Your task to perform on an android device: Open Youtube and go to the subscriptions tab Image 0: 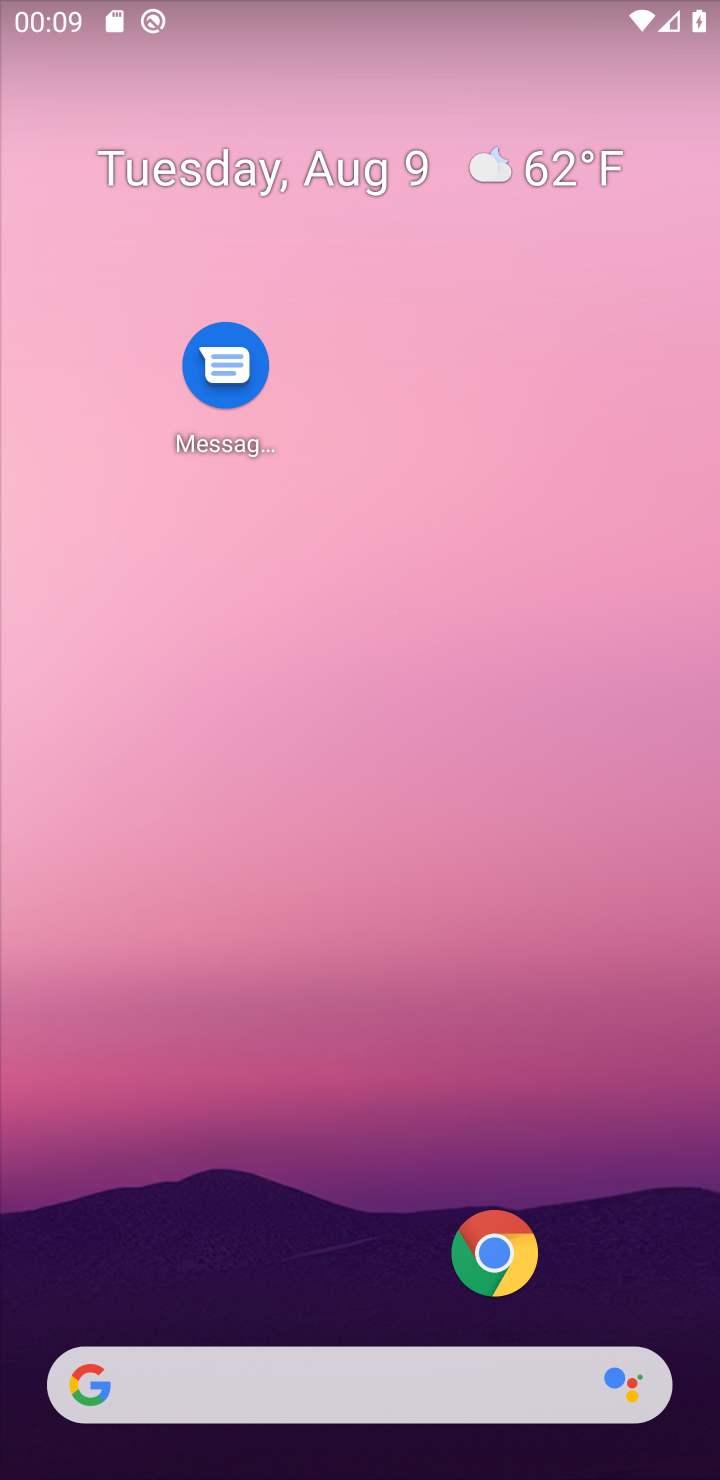
Step 0: drag from (370, 477) to (380, 373)
Your task to perform on an android device: Open Youtube and go to the subscriptions tab Image 1: 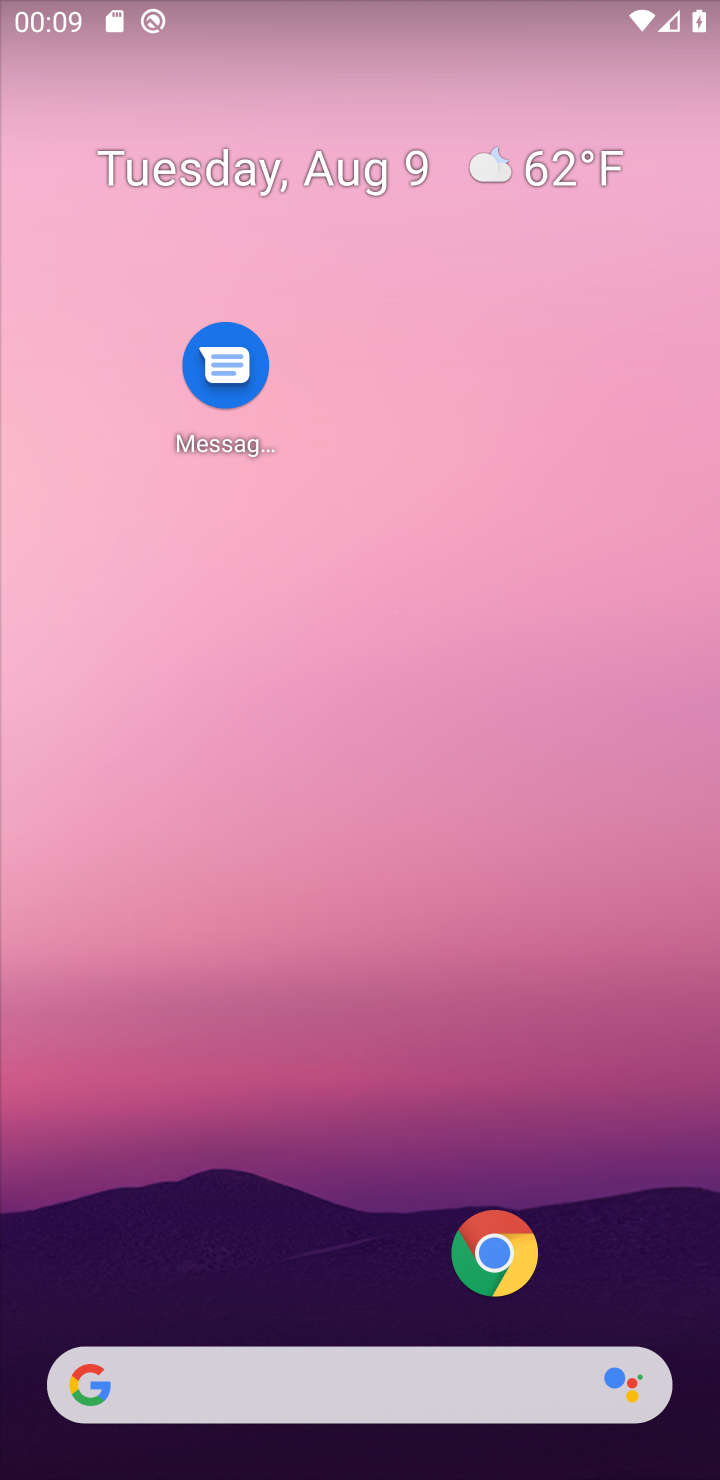
Step 1: drag from (394, 1227) to (374, 234)
Your task to perform on an android device: Open Youtube and go to the subscriptions tab Image 2: 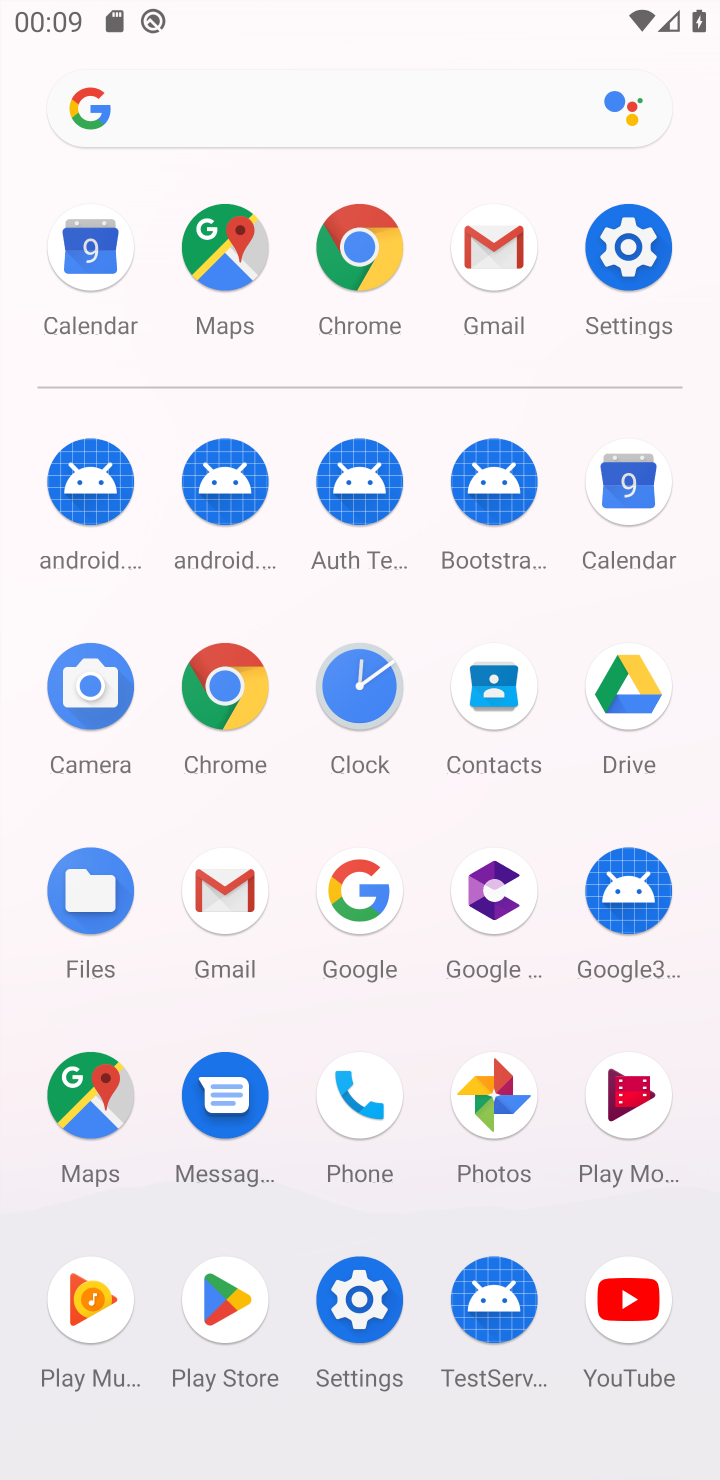
Step 2: click (638, 1310)
Your task to perform on an android device: Open Youtube and go to the subscriptions tab Image 3: 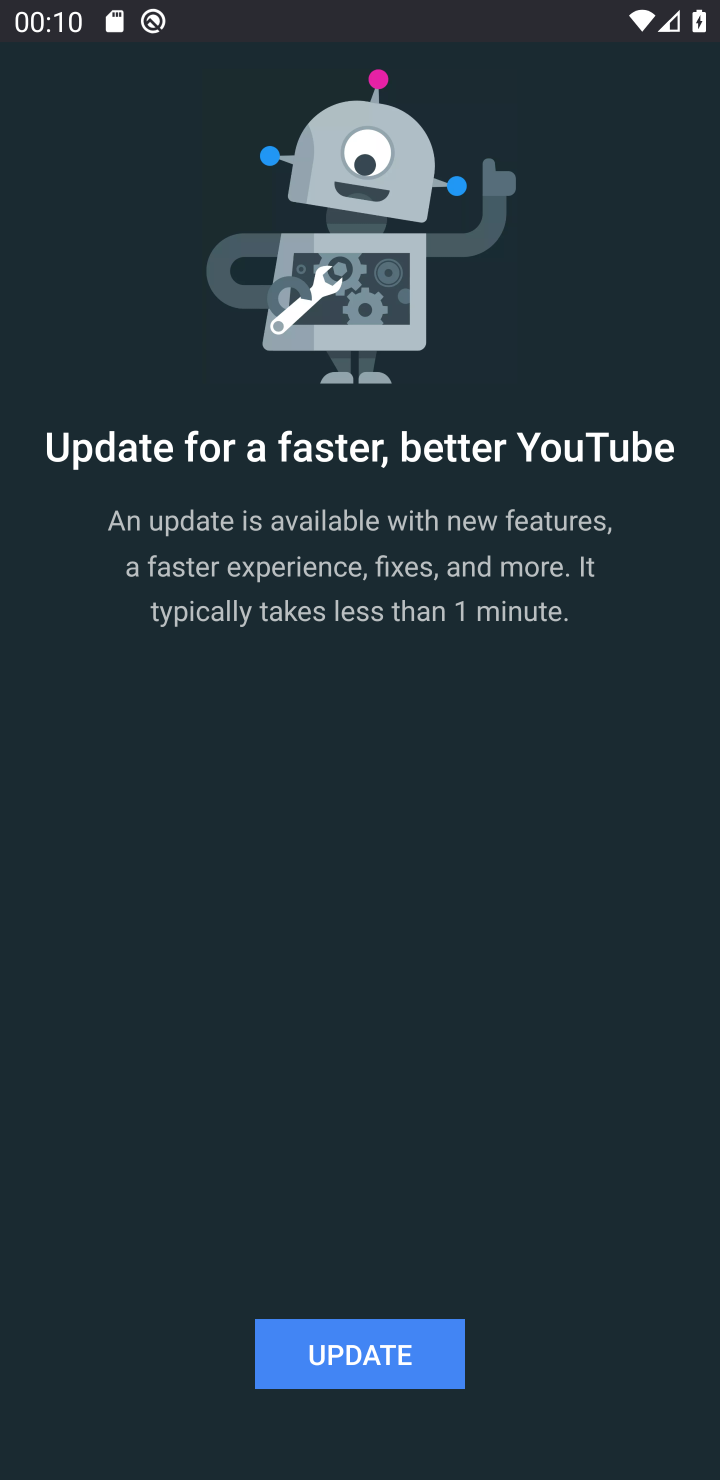
Step 3: task complete